Your task to perform on an android device: What's the weather today? Image 0: 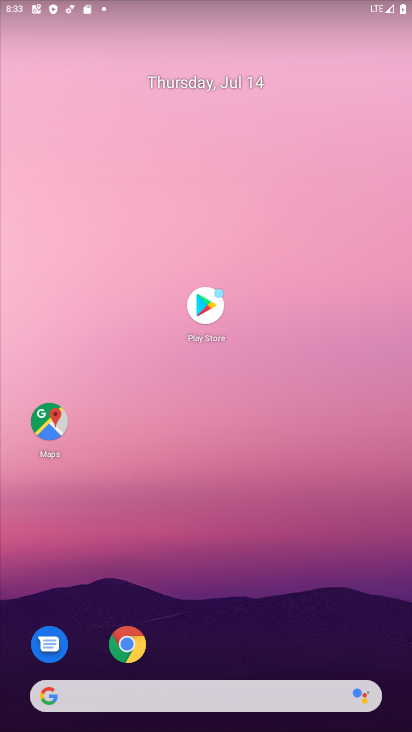
Step 0: drag from (211, 661) to (242, 248)
Your task to perform on an android device: What's the weather today? Image 1: 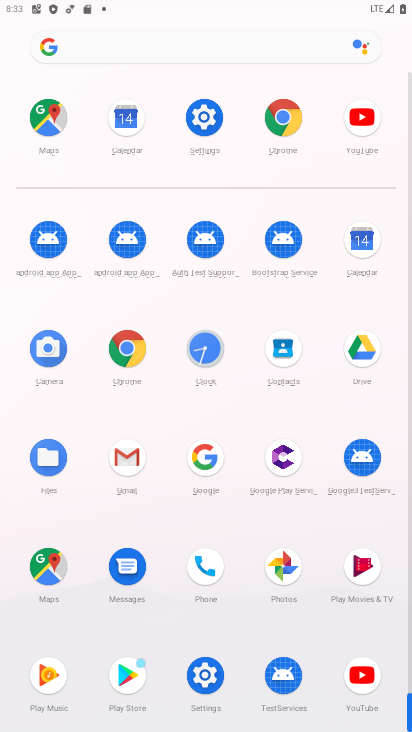
Step 1: click (111, 27)
Your task to perform on an android device: What's the weather today? Image 2: 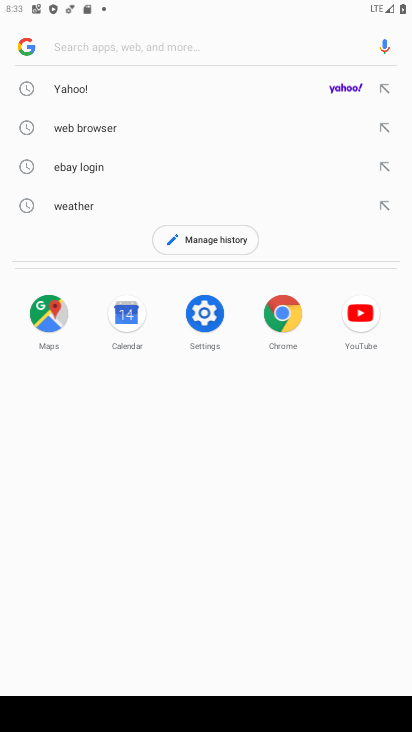
Step 2: type "weather today?"
Your task to perform on an android device: What's the weather today? Image 3: 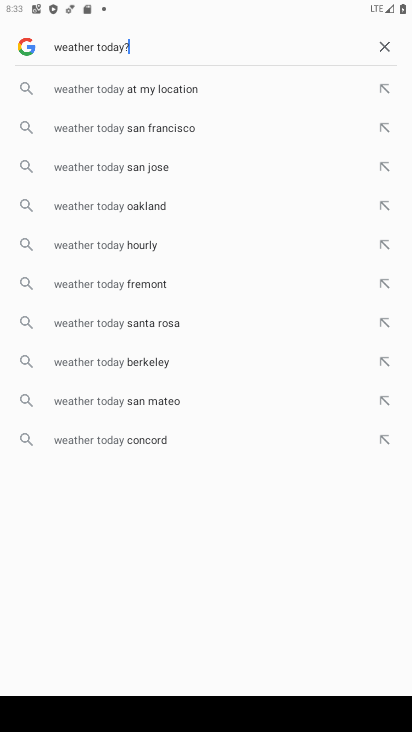
Step 3: click (180, 76)
Your task to perform on an android device: What's the weather today? Image 4: 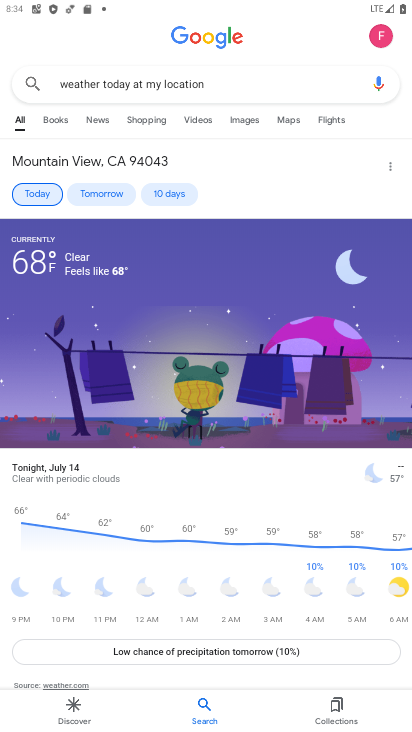
Step 4: task complete